Your task to perform on an android device: Search for Mexican restaurants on Maps Image 0: 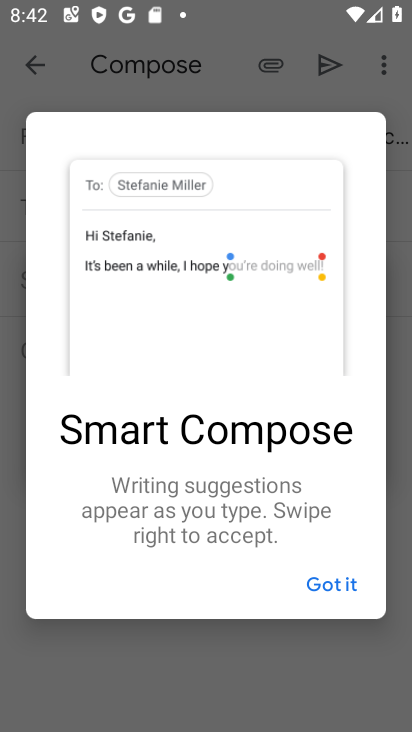
Step 0: press home button
Your task to perform on an android device: Search for Mexican restaurants on Maps Image 1: 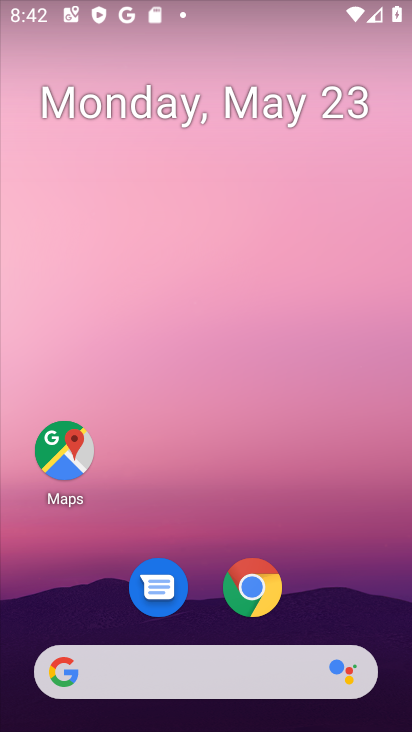
Step 1: click (66, 457)
Your task to perform on an android device: Search for Mexican restaurants on Maps Image 2: 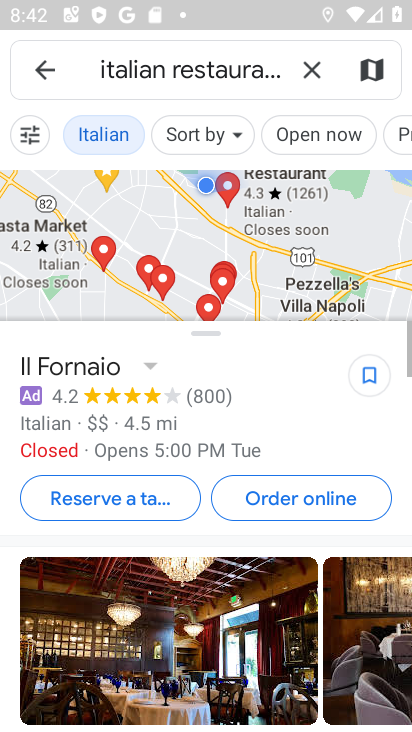
Step 2: click (313, 75)
Your task to perform on an android device: Search for Mexican restaurants on Maps Image 3: 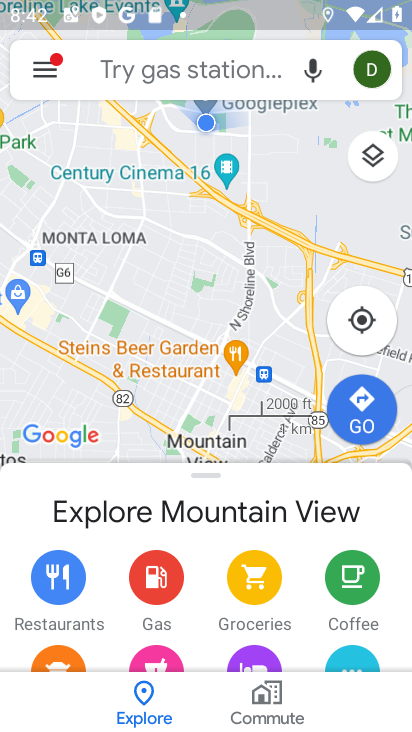
Step 3: click (177, 73)
Your task to perform on an android device: Search for Mexican restaurants on Maps Image 4: 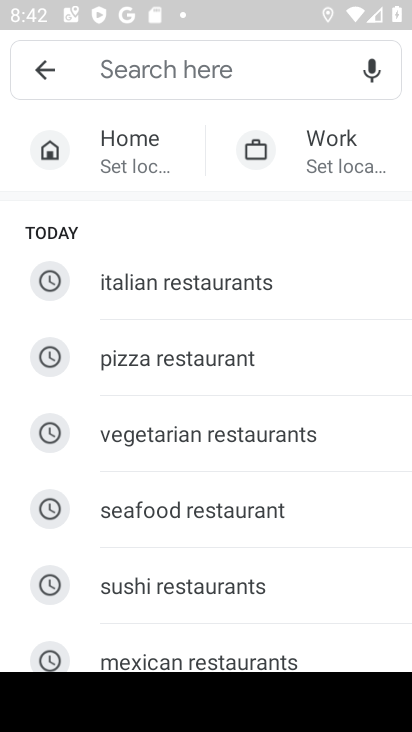
Step 4: click (123, 661)
Your task to perform on an android device: Search for Mexican restaurants on Maps Image 5: 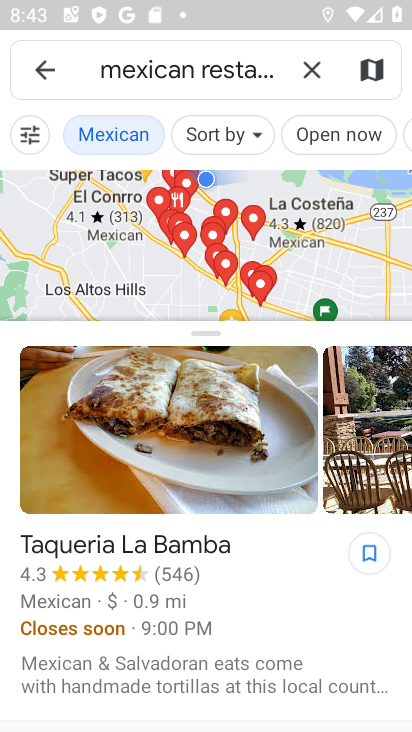
Step 5: task complete